Your task to perform on an android device: When is my next appointment? Image 0: 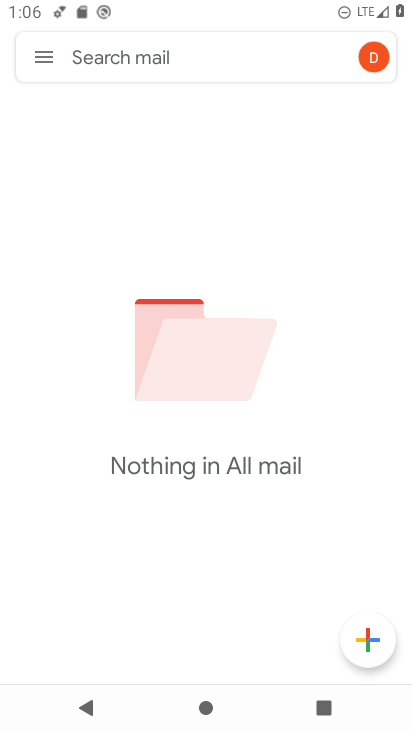
Step 0: press home button
Your task to perform on an android device: When is my next appointment? Image 1: 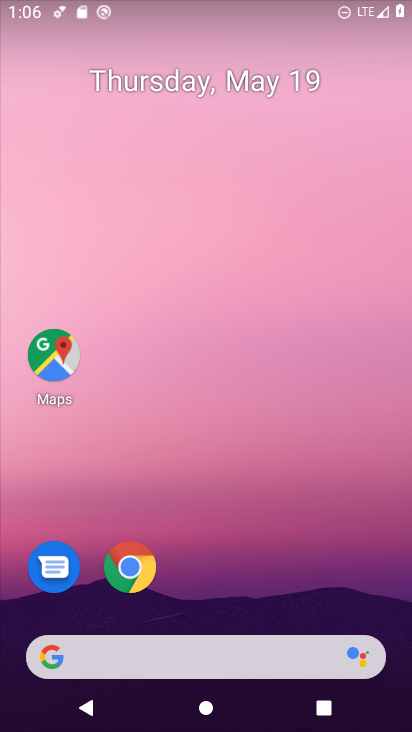
Step 1: drag from (229, 558) to (179, 87)
Your task to perform on an android device: When is my next appointment? Image 2: 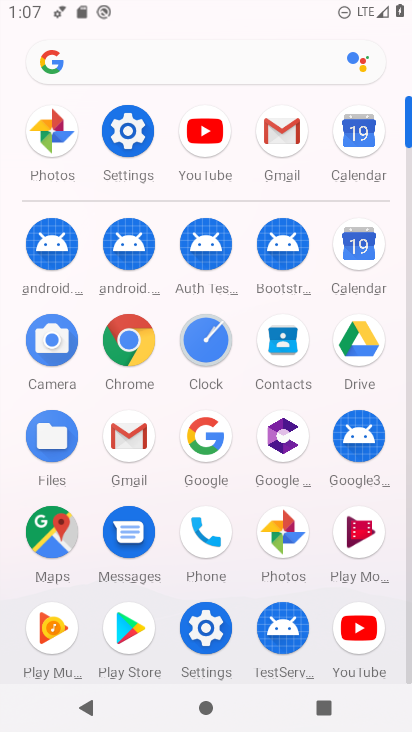
Step 2: click (357, 243)
Your task to perform on an android device: When is my next appointment? Image 3: 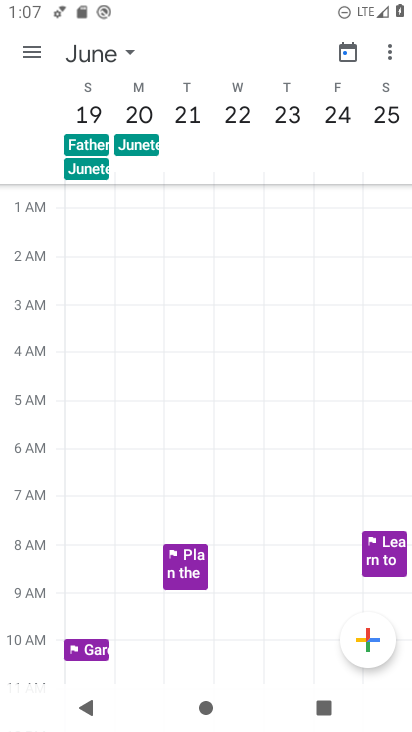
Step 3: click (30, 48)
Your task to perform on an android device: When is my next appointment? Image 4: 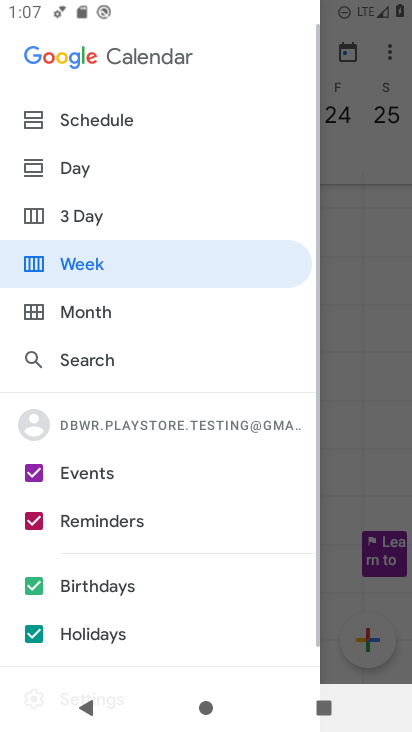
Step 4: click (65, 313)
Your task to perform on an android device: When is my next appointment? Image 5: 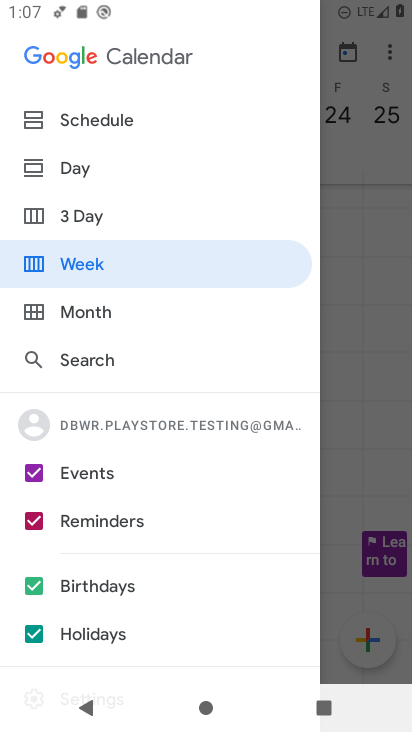
Step 5: click (33, 303)
Your task to perform on an android device: When is my next appointment? Image 6: 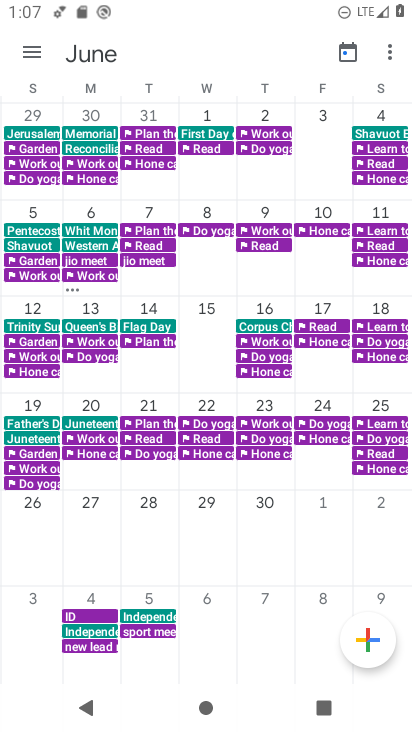
Step 6: drag from (35, 296) to (402, 410)
Your task to perform on an android device: When is my next appointment? Image 7: 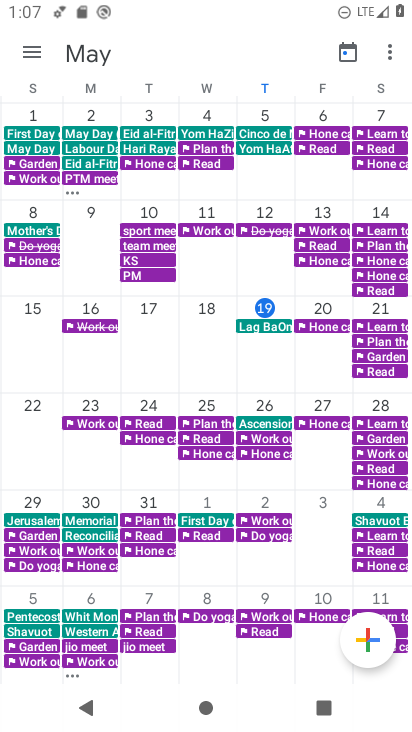
Step 7: click (269, 317)
Your task to perform on an android device: When is my next appointment? Image 8: 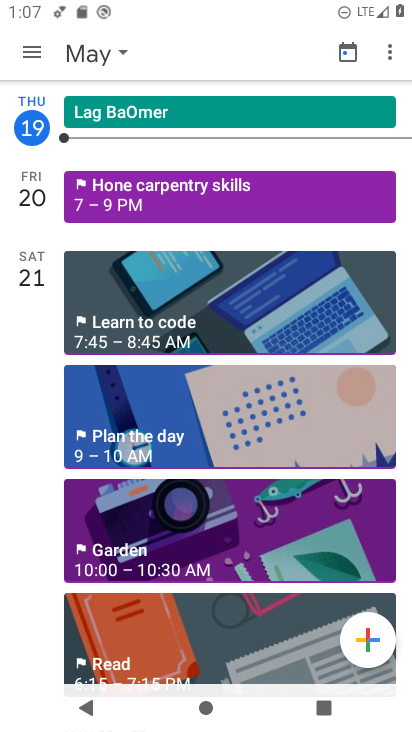
Step 8: task complete